Your task to perform on an android device: Show me popular videos on Youtube Image 0: 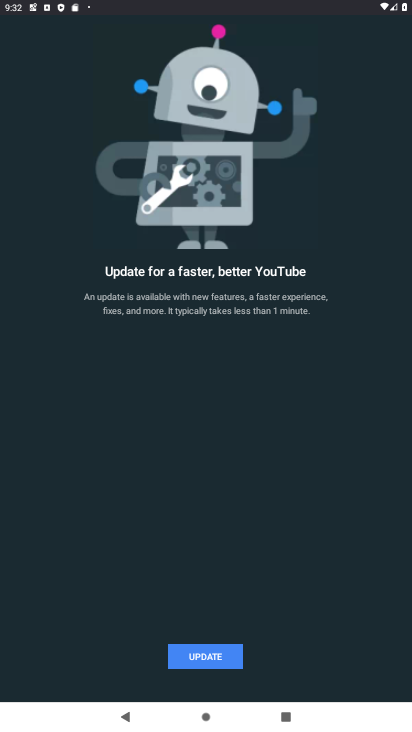
Step 0: click (192, 645)
Your task to perform on an android device: Show me popular videos on Youtube Image 1: 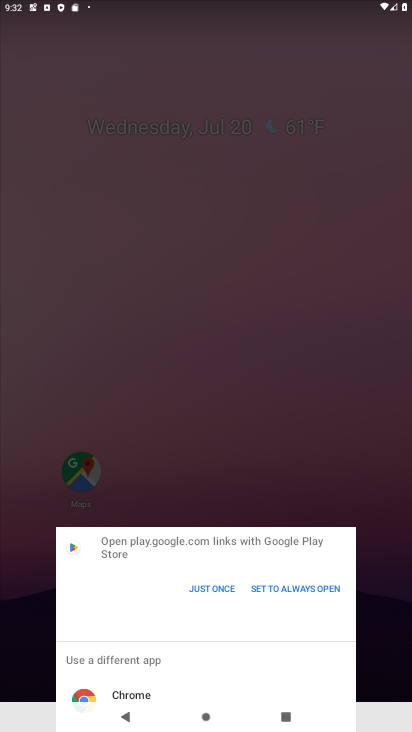
Step 1: click (210, 591)
Your task to perform on an android device: Show me popular videos on Youtube Image 2: 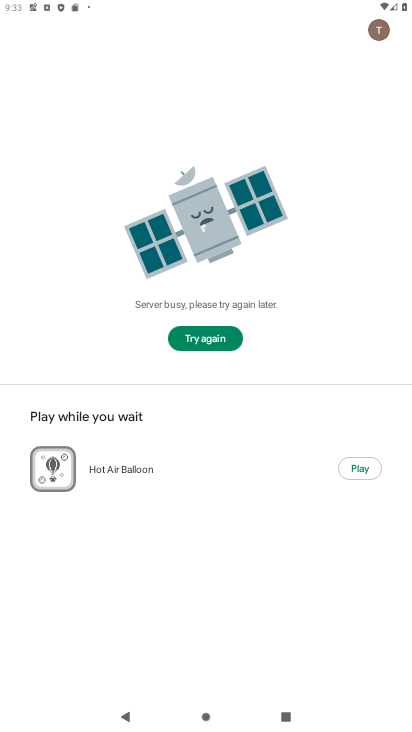
Step 2: task complete